Your task to perform on an android device: Check the weather Image 0: 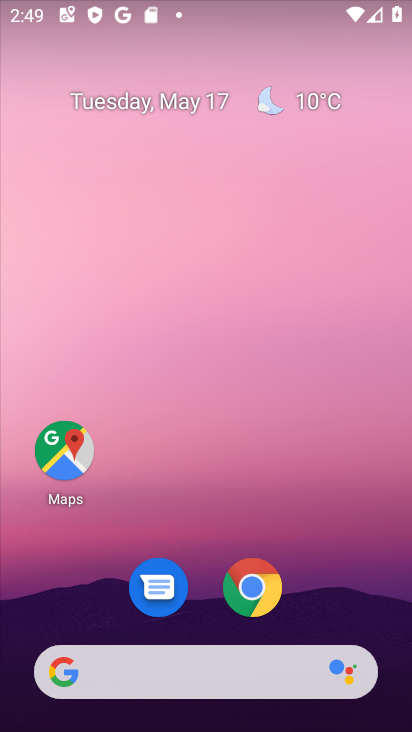
Step 0: drag from (333, 524) to (258, 5)
Your task to perform on an android device: Check the weather Image 1: 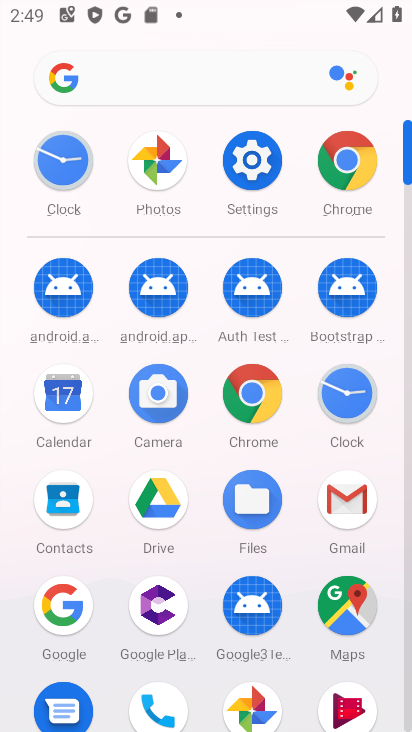
Step 1: click (0, 261)
Your task to perform on an android device: Check the weather Image 2: 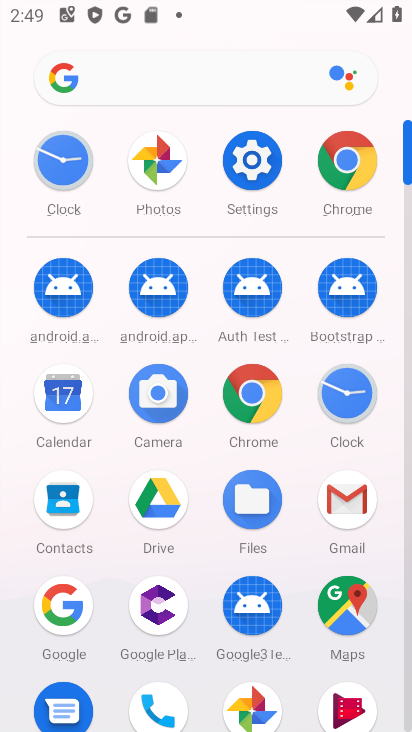
Step 2: drag from (13, 513) to (20, 235)
Your task to perform on an android device: Check the weather Image 3: 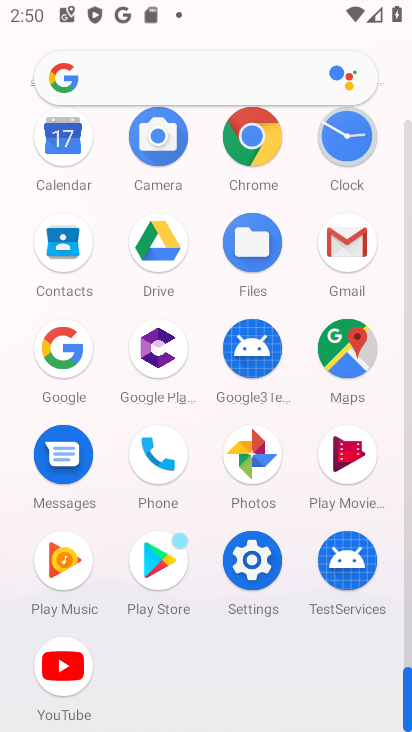
Step 3: click (257, 133)
Your task to perform on an android device: Check the weather Image 4: 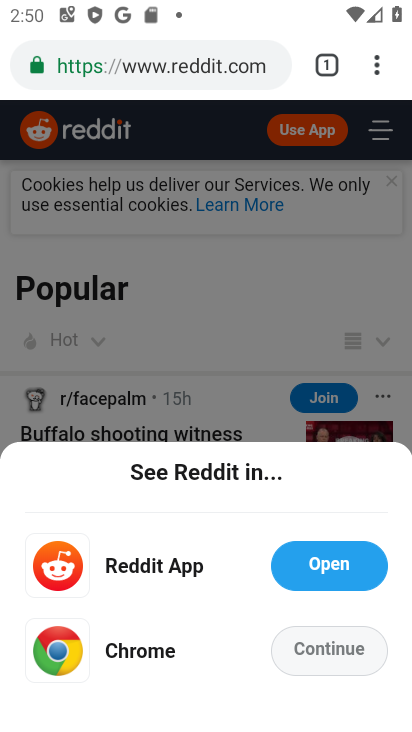
Step 4: click (224, 55)
Your task to perform on an android device: Check the weather Image 5: 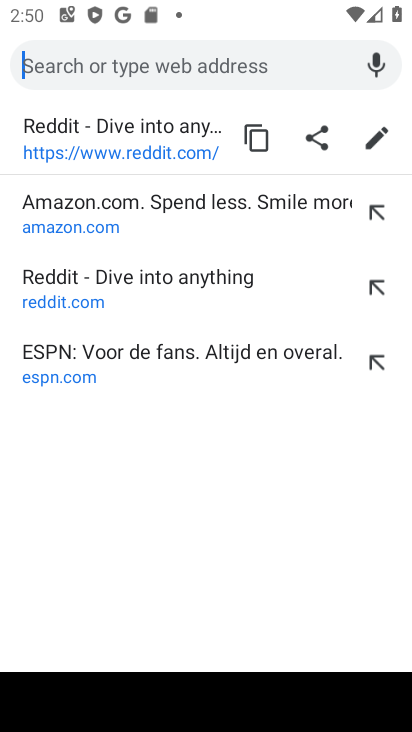
Step 5: type "Check the weather"
Your task to perform on an android device: Check the weather Image 6: 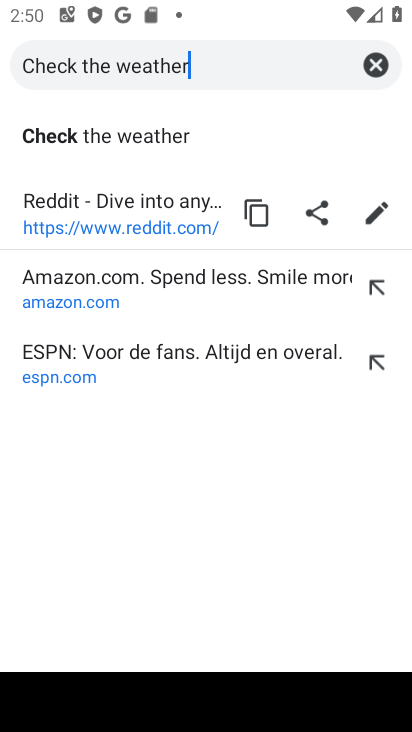
Step 6: type ""
Your task to perform on an android device: Check the weather Image 7: 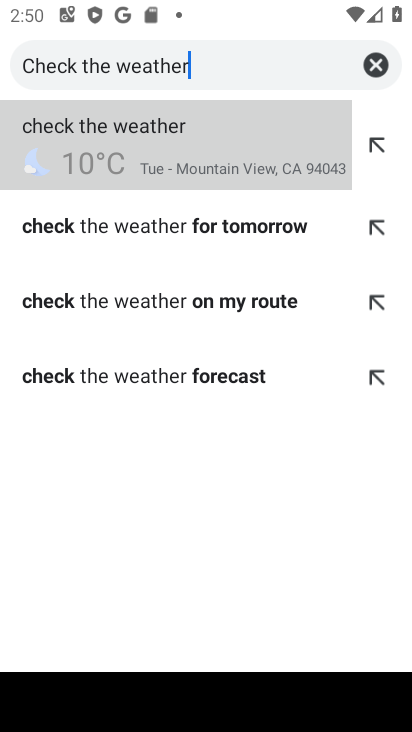
Step 7: click (204, 137)
Your task to perform on an android device: Check the weather Image 8: 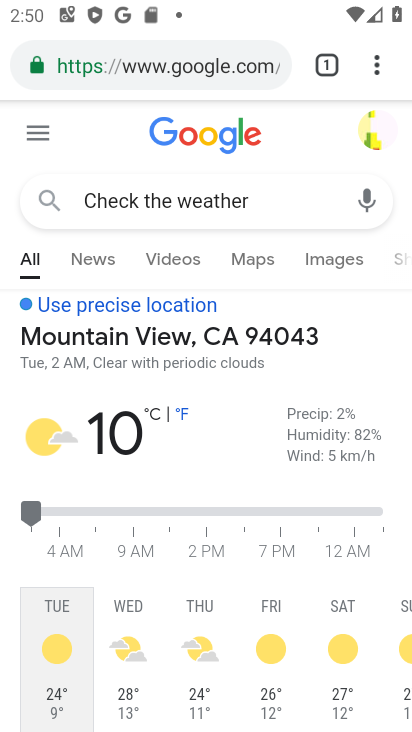
Step 8: task complete